Your task to perform on an android device: set an alarm Image 0: 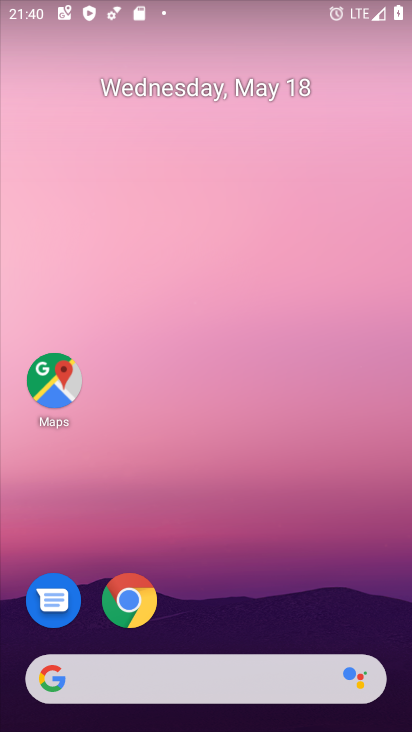
Step 0: drag from (224, 592) to (223, 24)
Your task to perform on an android device: set an alarm Image 1: 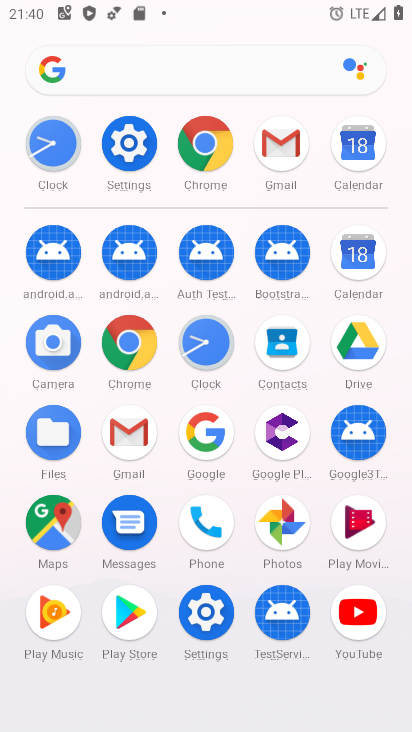
Step 1: click (201, 351)
Your task to perform on an android device: set an alarm Image 2: 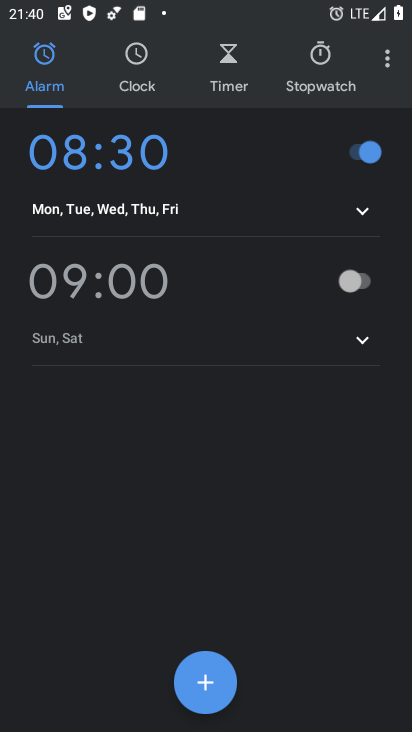
Step 2: click (37, 67)
Your task to perform on an android device: set an alarm Image 3: 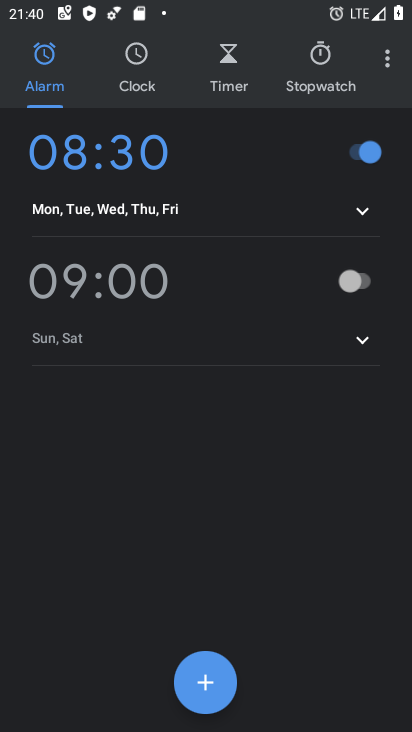
Step 3: task complete